Your task to perform on an android device: empty trash in google photos Image 0: 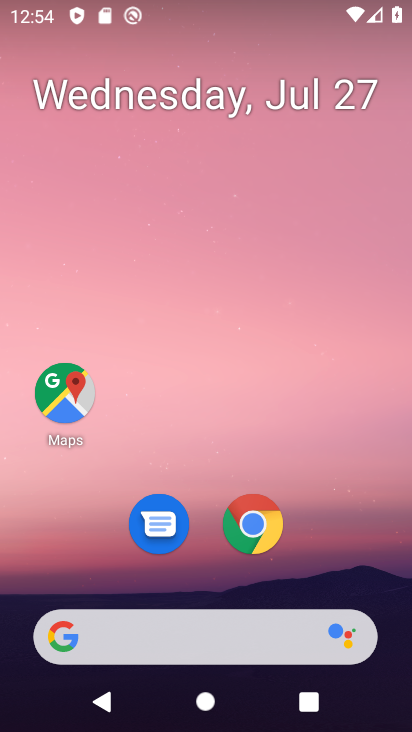
Step 0: drag from (337, 500) to (353, 47)
Your task to perform on an android device: empty trash in google photos Image 1: 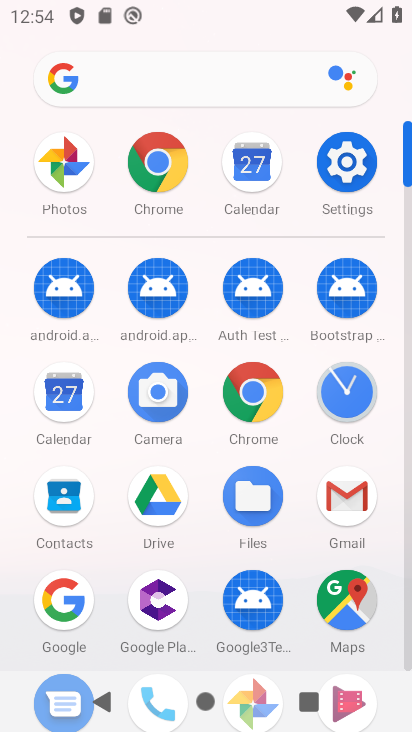
Step 1: click (62, 172)
Your task to perform on an android device: empty trash in google photos Image 2: 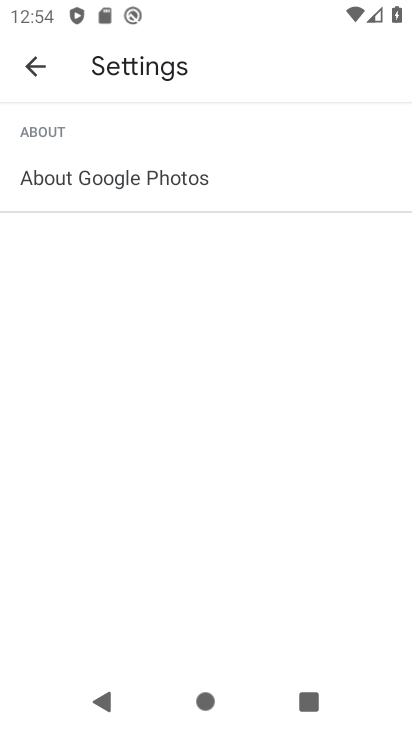
Step 2: click (34, 72)
Your task to perform on an android device: empty trash in google photos Image 3: 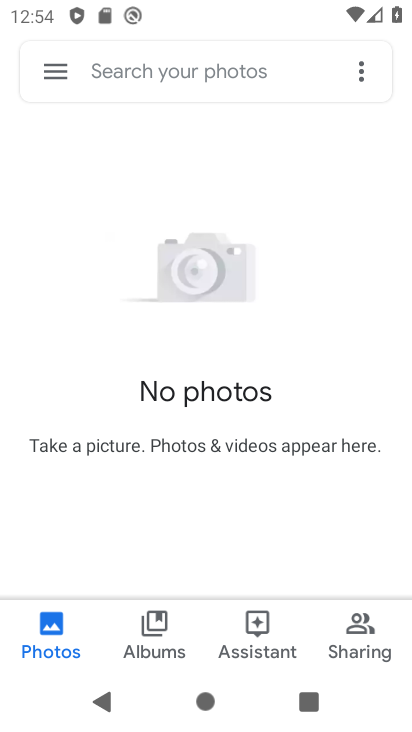
Step 3: click (55, 71)
Your task to perform on an android device: empty trash in google photos Image 4: 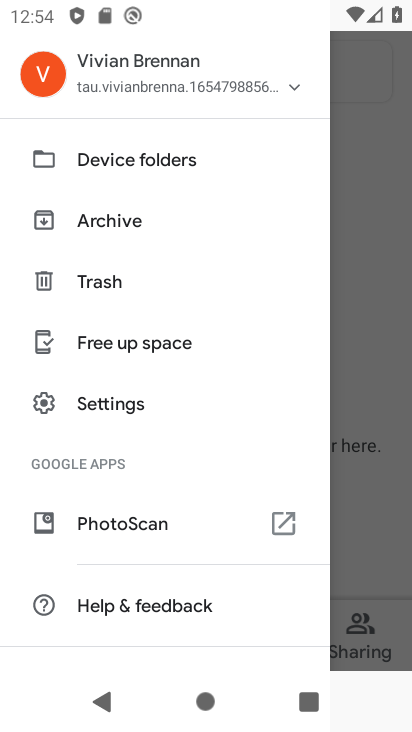
Step 4: click (78, 278)
Your task to perform on an android device: empty trash in google photos Image 5: 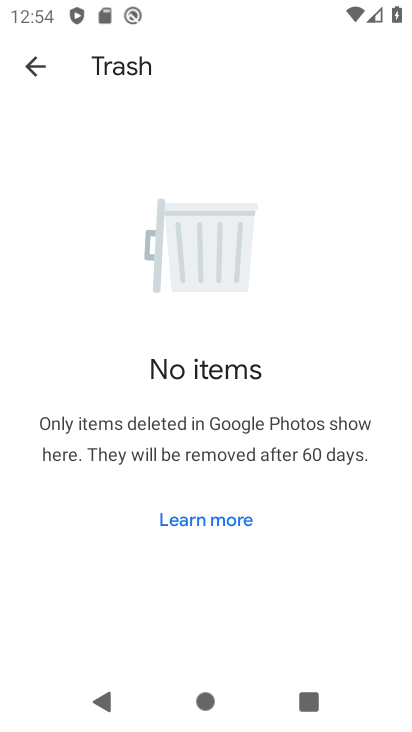
Step 5: task complete